Your task to perform on an android device: empty trash in the gmail app Image 0: 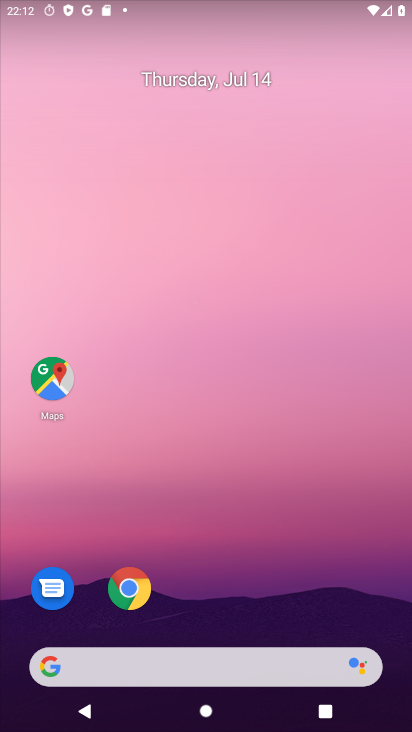
Step 0: drag from (232, 607) to (268, 105)
Your task to perform on an android device: empty trash in the gmail app Image 1: 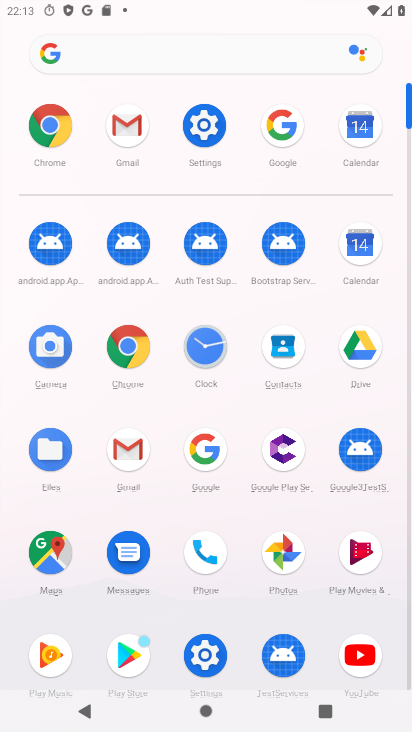
Step 1: click (128, 123)
Your task to perform on an android device: empty trash in the gmail app Image 2: 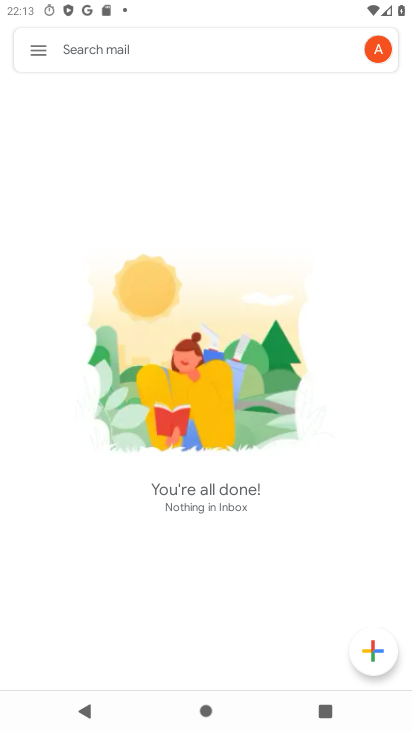
Step 2: click (42, 48)
Your task to perform on an android device: empty trash in the gmail app Image 3: 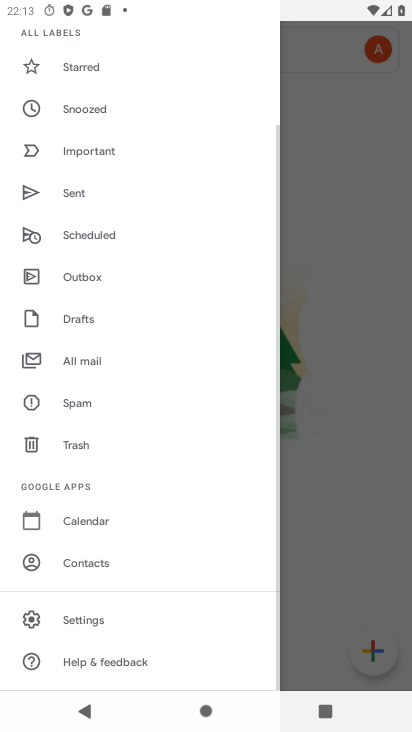
Step 3: click (93, 442)
Your task to perform on an android device: empty trash in the gmail app Image 4: 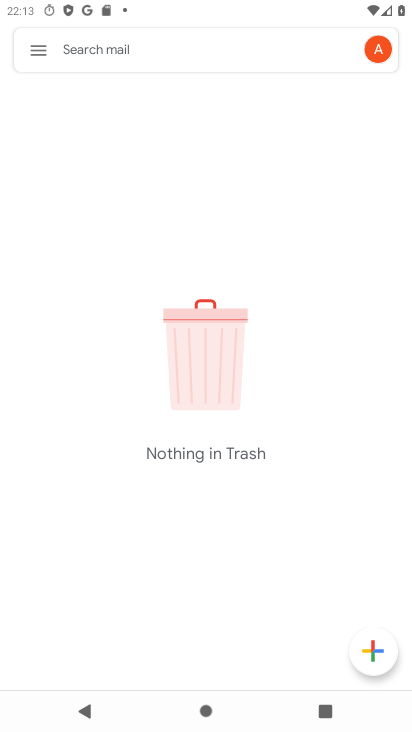
Step 4: task complete